Your task to perform on an android device: Open CNN.com Image 0: 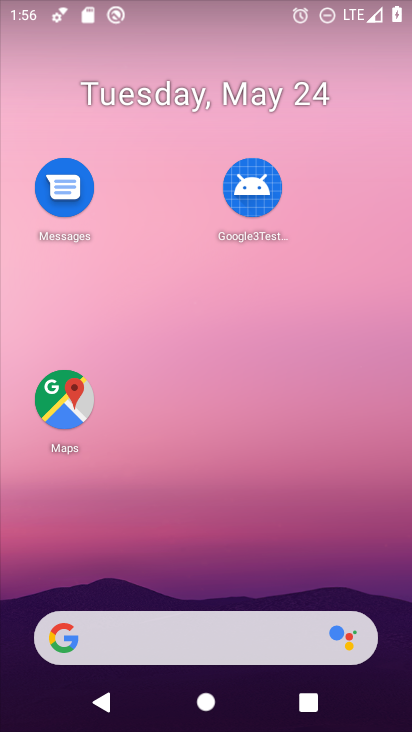
Step 0: drag from (190, 526) to (155, 8)
Your task to perform on an android device: Open CNN.com Image 1: 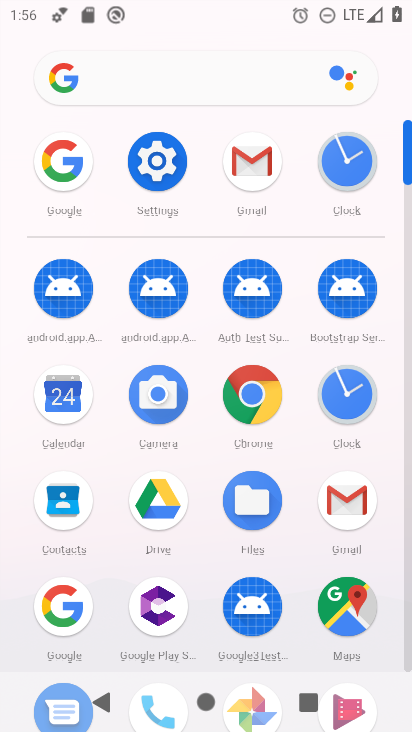
Step 1: click (255, 450)
Your task to perform on an android device: Open CNN.com Image 2: 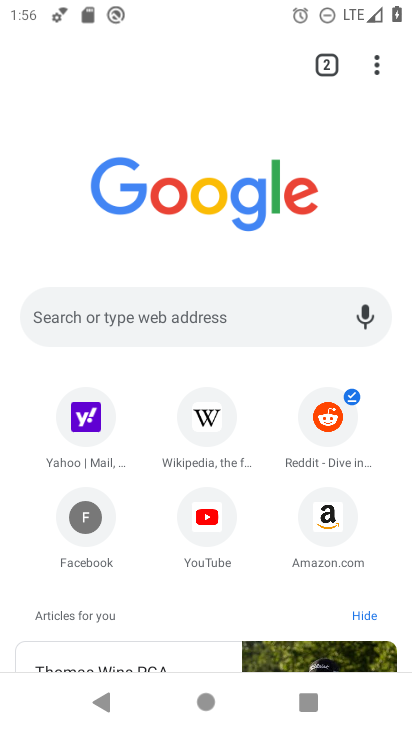
Step 2: click (166, 328)
Your task to perform on an android device: Open CNN.com Image 3: 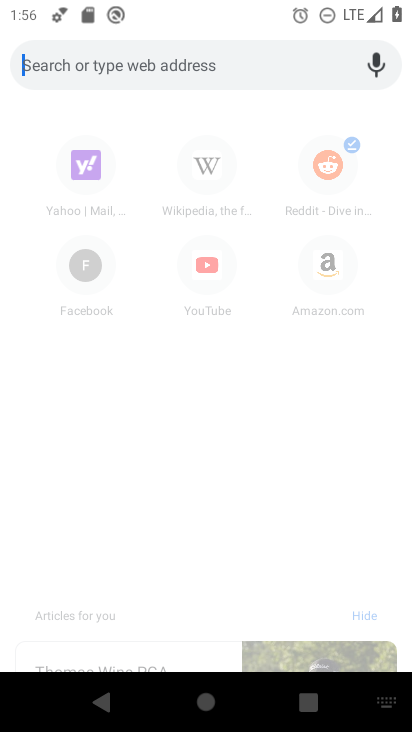
Step 3: type "www.cnn.com"
Your task to perform on an android device: Open CNN.com Image 4: 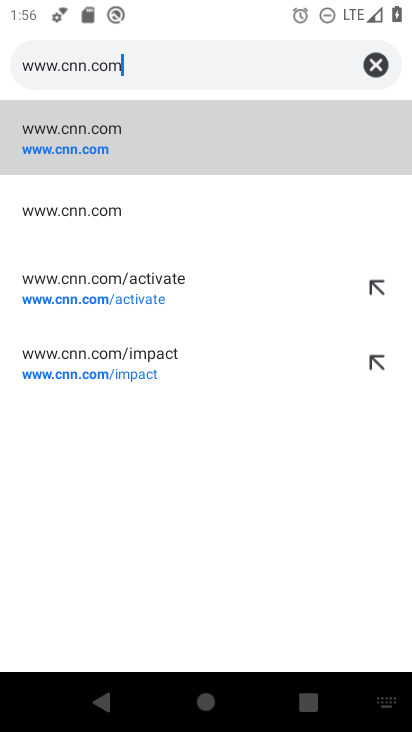
Step 4: click (78, 141)
Your task to perform on an android device: Open CNN.com Image 5: 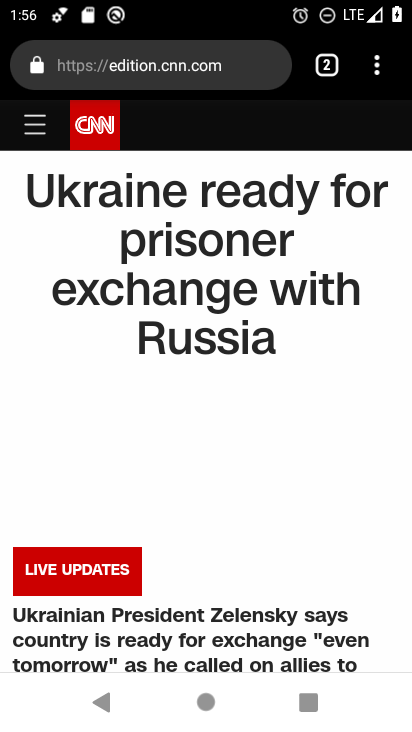
Step 5: task complete